Your task to perform on an android device: turn off wifi Image 0: 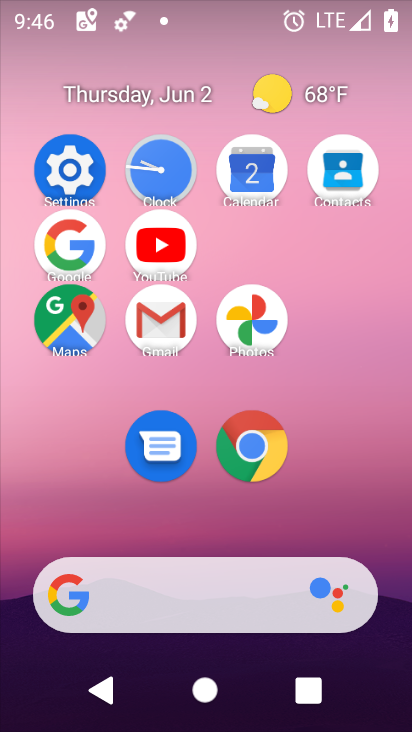
Step 0: click (56, 169)
Your task to perform on an android device: turn off wifi Image 1: 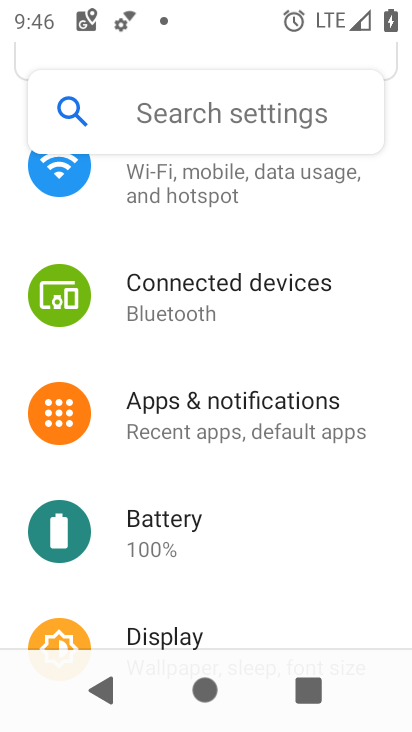
Step 1: click (293, 192)
Your task to perform on an android device: turn off wifi Image 2: 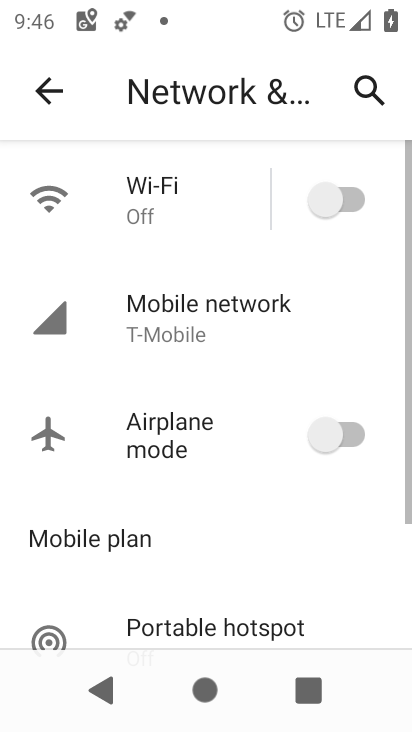
Step 2: task complete